Your task to perform on an android device: Clear the cart on walmart. Add "rayovac triple a" to the cart on walmart Image 0: 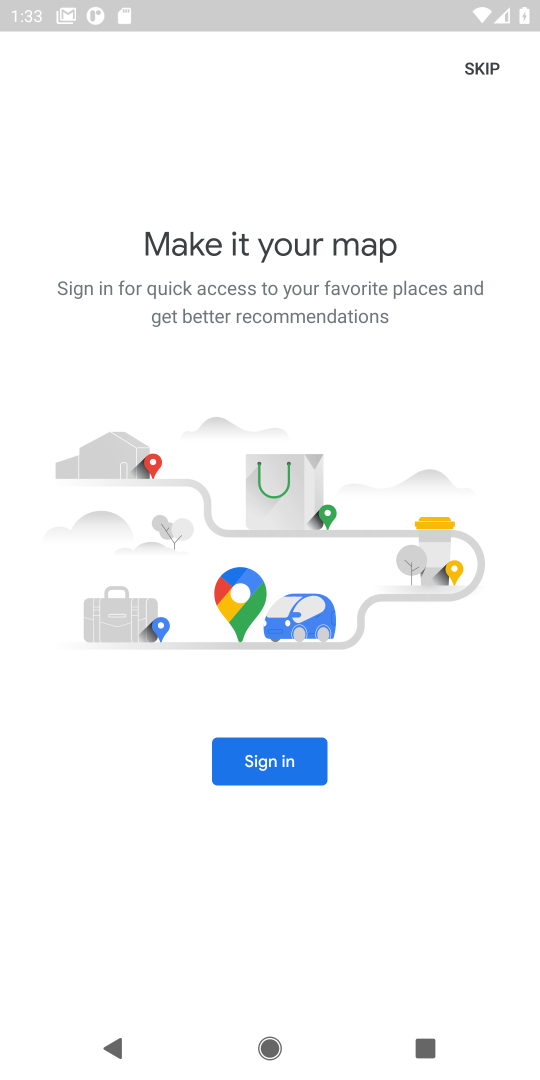
Step 0: press home button
Your task to perform on an android device: Clear the cart on walmart. Add "rayovac triple a" to the cart on walmart Image 1: 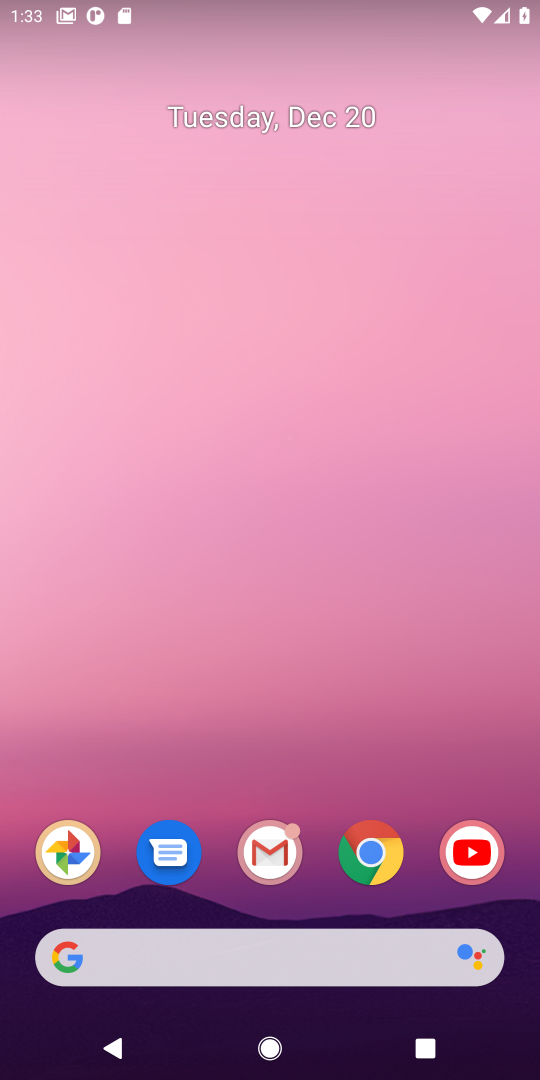
Step 1: click (377, 859)
Your task to perform on an android device: Clear the cart on walmart. Add "rayovac triple a" to the cart on walmart Image 2: 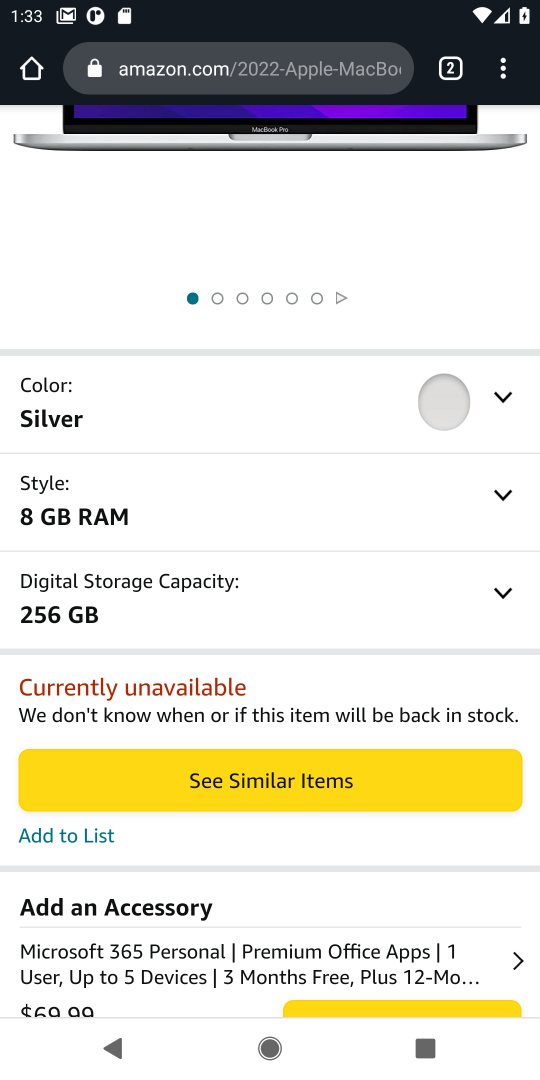
Step 2: click (196, 77)
Your task to perform on an android device: Clear the cart on walmart. Add "rayovac triple a" to the cart on walmart Image 3: 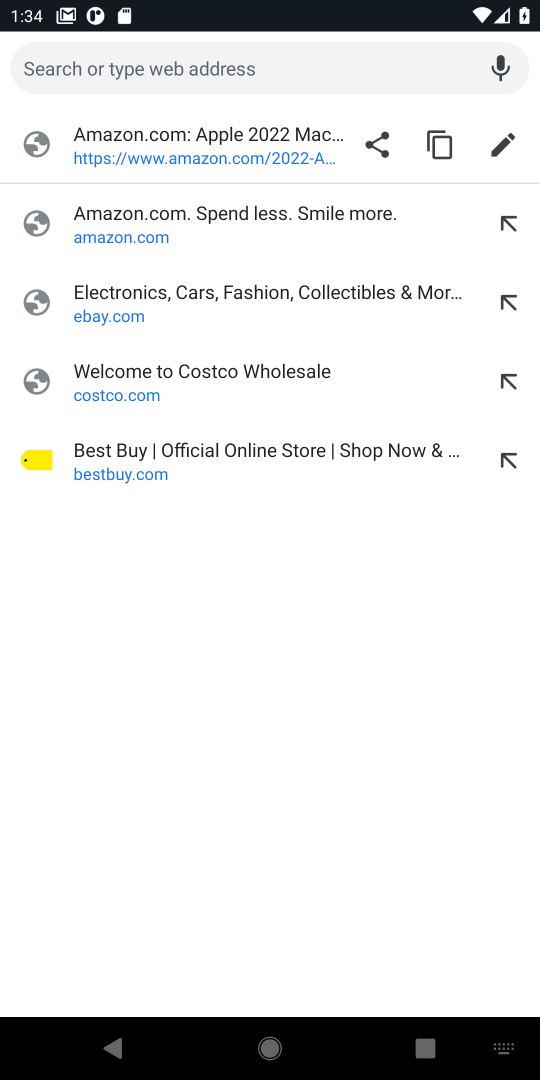
Step 3: type "walmart.com"
Your task to perform on an android device: Clear the cart on walmart. Add "rayovac triple a" to the cart on walmart Image 4: 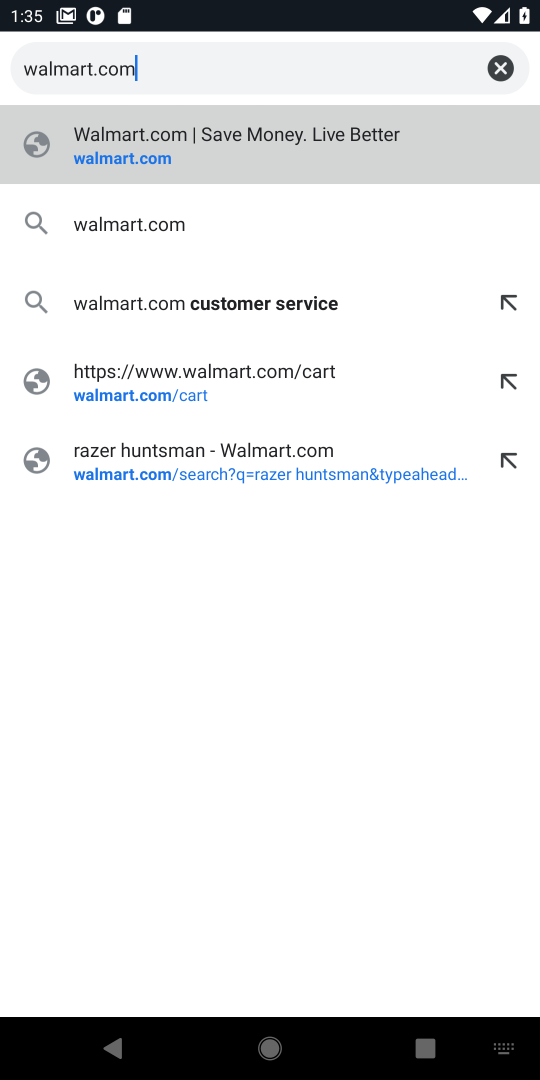
Step 4: click (118, 161)
Your task to perform on an android device: Clear the cart on walmart. Add "rayovac triple a" to the cart on walmart Image 5: 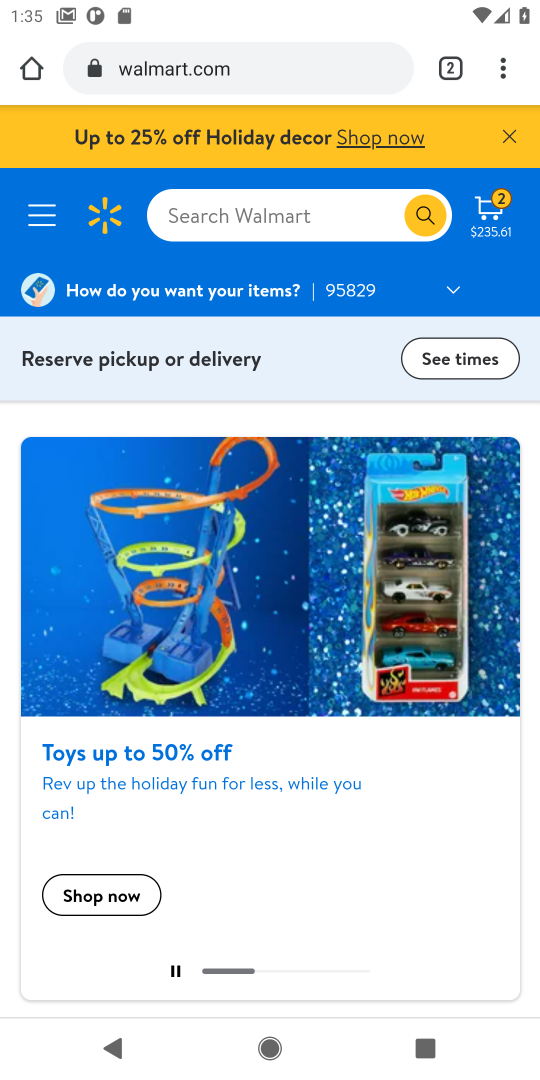
Step 5: click (493, 209)
Your task to perform on an android device: Clear the cart on walmart. Add "rayovac triple a" to the cart on walmart Image 6: 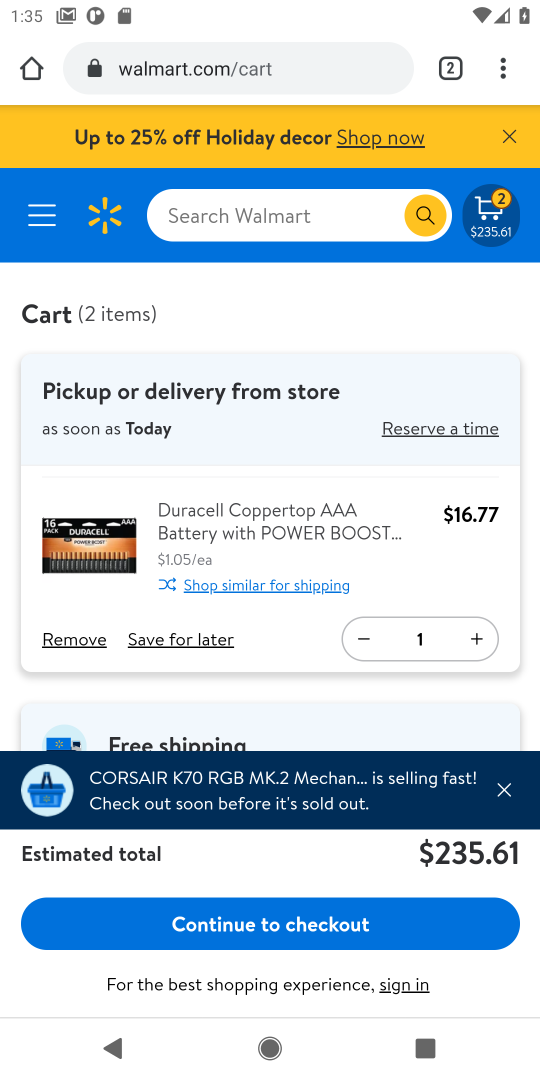
Step 6: click (72, 645)
Your task to perform on an android device: Clear the cart on walmart. Add "rayovac triple a" to the cart on walmart Image 7: 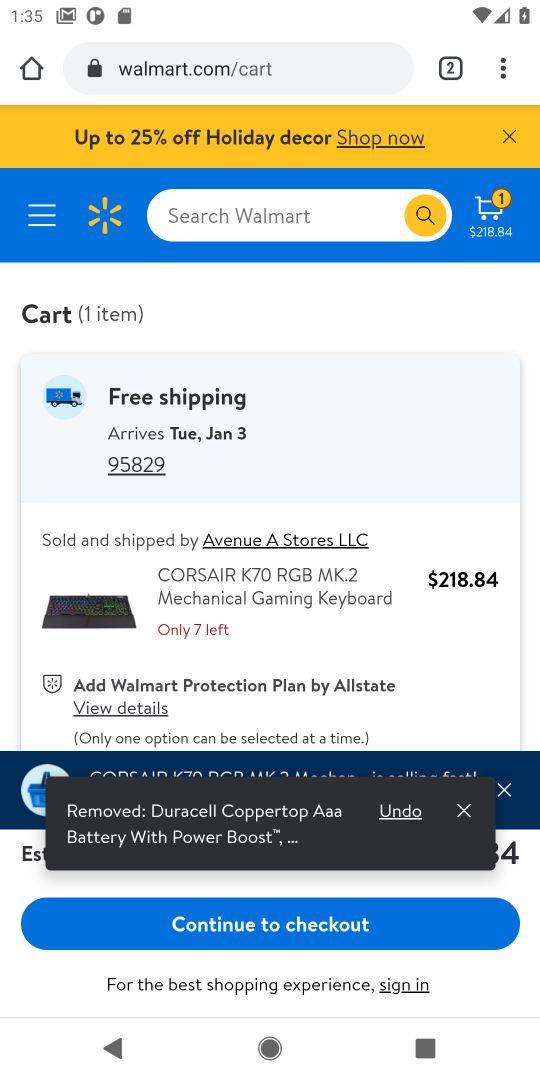
Step 7: drag from (262, 662) to (221, 345)
Your task to perform on an android device: Clear the cart on walmart. Add "rayovac triple a" to the cart on walmart Image 8: 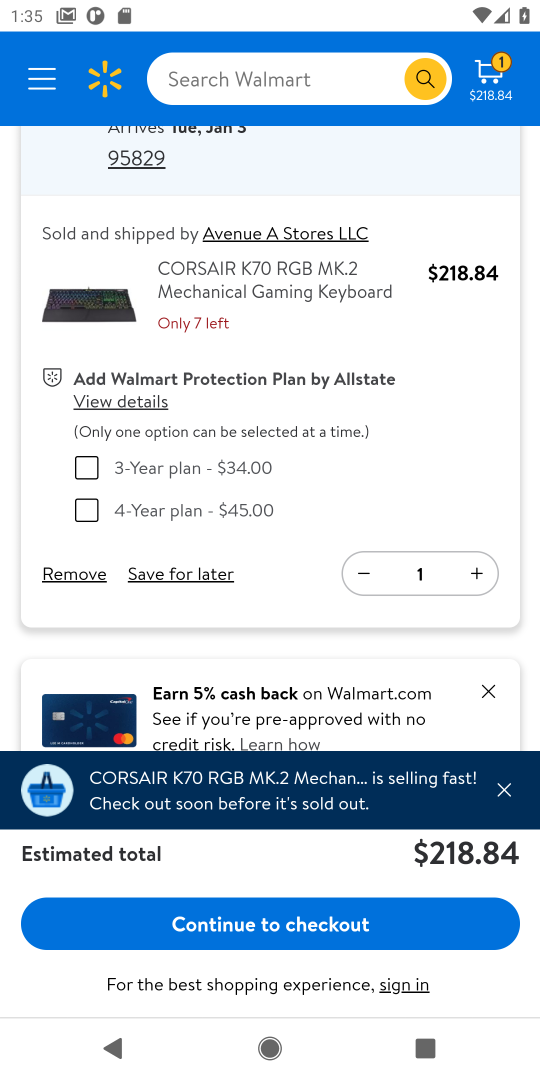
Step 8: click (59, 579)
Your task to perform on an android device: Clear the cart on walmart. Add "rayovac triple a" to the cart on walmart Image 9: 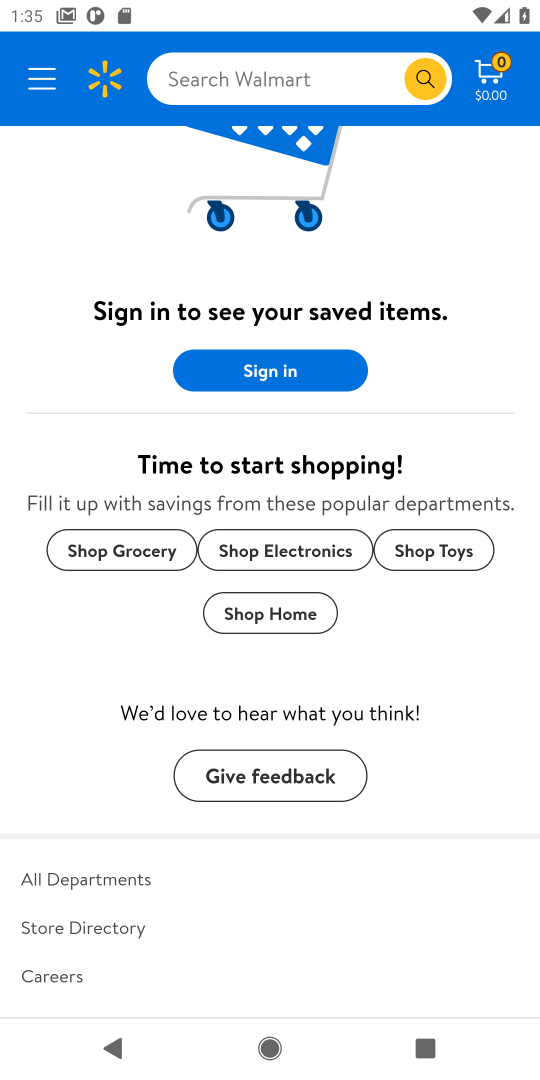
Step 9: click (179, 91)
Your task to perform on an android device: Clear the cart on walmart. Add "rayovac triple a" to the cart on walmart Image 10: 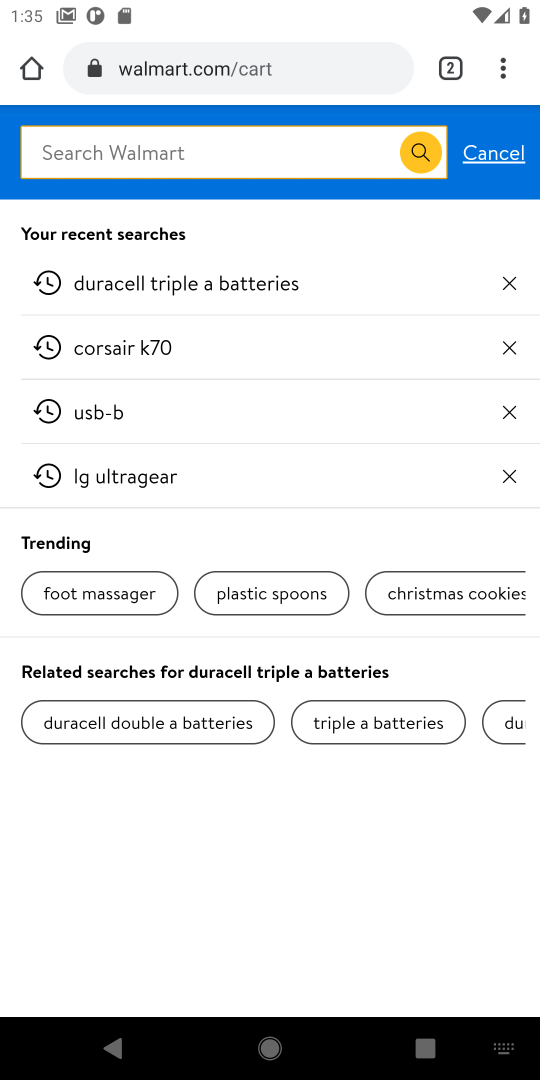
Step 10: type "rayovac triple a"
Your task to perform on an android device: Clear the cart on walmart. Add "rayovac triple a" to the cart on walmart Image 11: 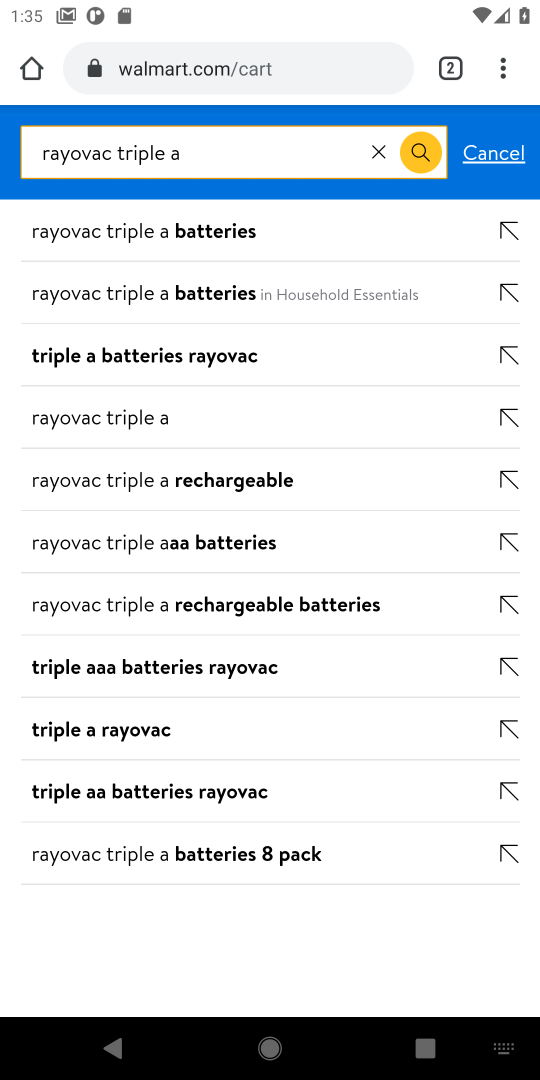
Step 11: click (129, 241)
Your task to perform on an android device: Clear the cart on walmart. Add "rayovac triple a" to the cart on walmart Image 12: 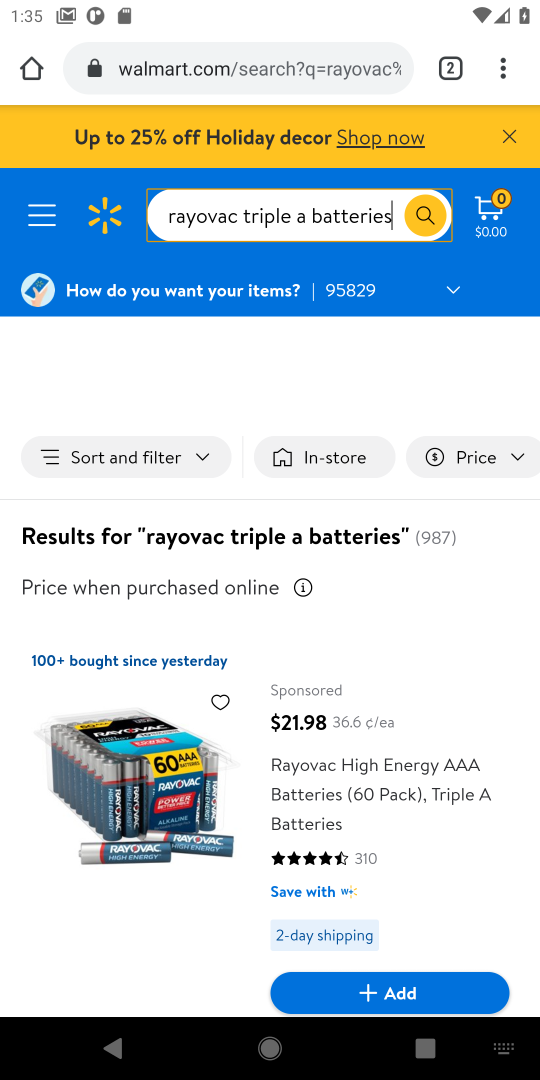
Step 12: drag from (191, 765) to (197, 481)
Your task to perform on an android device: Clear the cart on walmart. Add "rayovac triple a" to the cart on walmart Image 13: 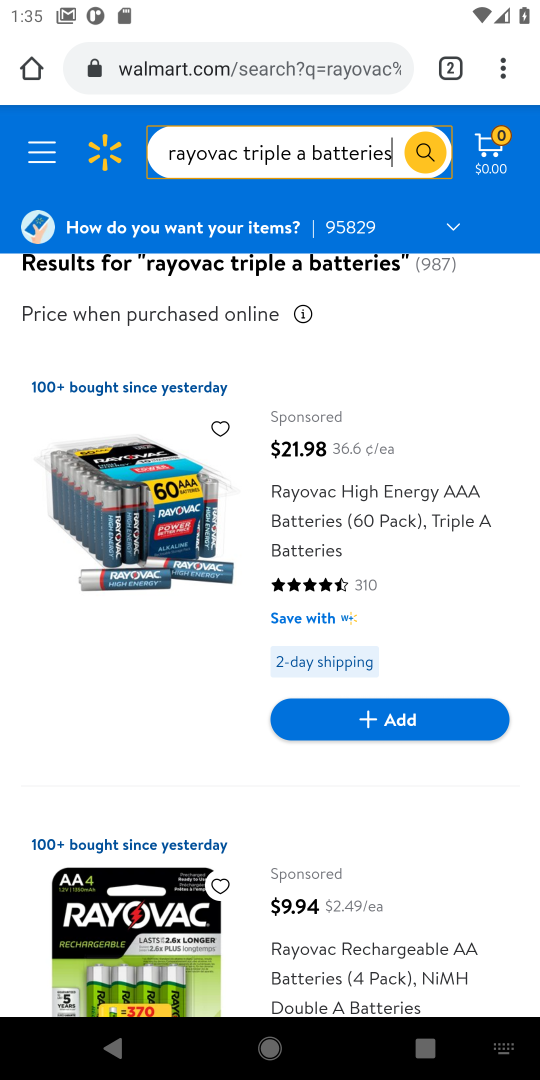
Step 13: click (367, 732)
Your task to perform on an android device: Clear the cart on walmart. Add "rayovac triple a" to the cart on walmart Image 14: 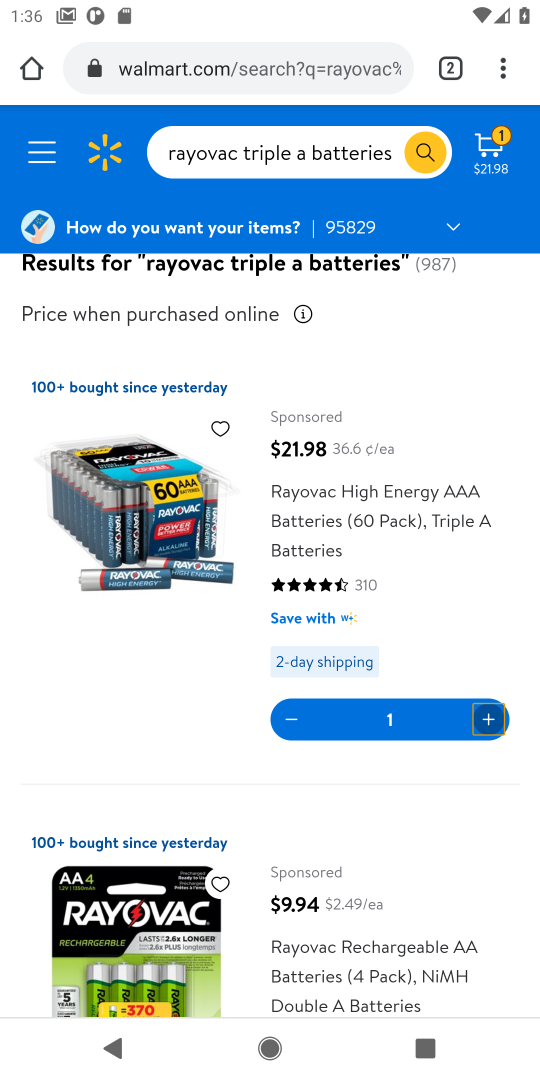
Step 14: task complete